Your task to perform on an android device: turn off notifications settings in the gmail app Image 0: 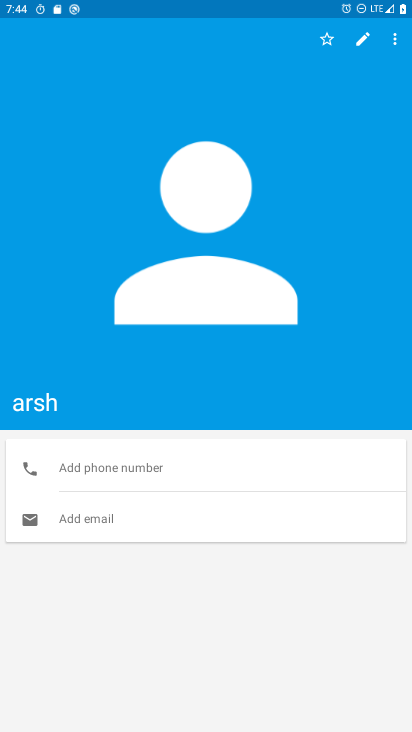
Step 0: press home button
Your task to perform on an android device: turn off notifications settings in the gmail app Image 1: 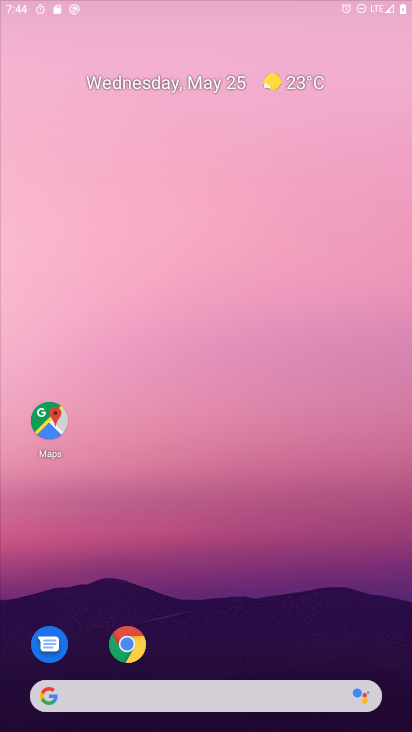
Step 1: drag from (340, 644) to (322, 113)
Your task to perform on an android device: turn off notifications settings in the gmail app Image 2: 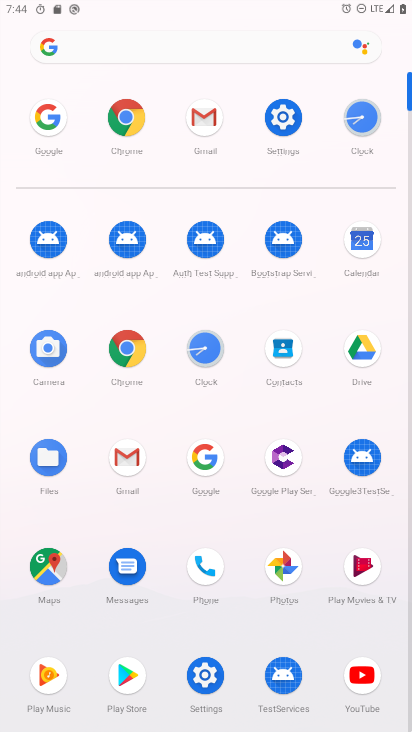
Step 2: click (120, 451)
Your task to perform on an android device: turn off notifications settings in the gmail app Image 3: 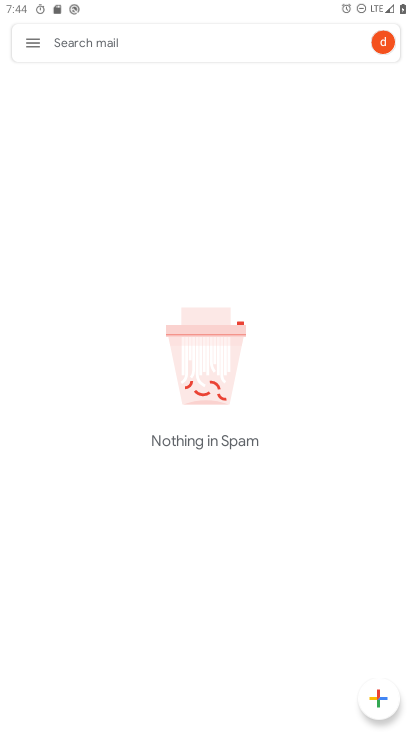
Step 3: click (33, 40)
Your task to perform on an android device: turn off notifications settings in the gmail app Image 4: 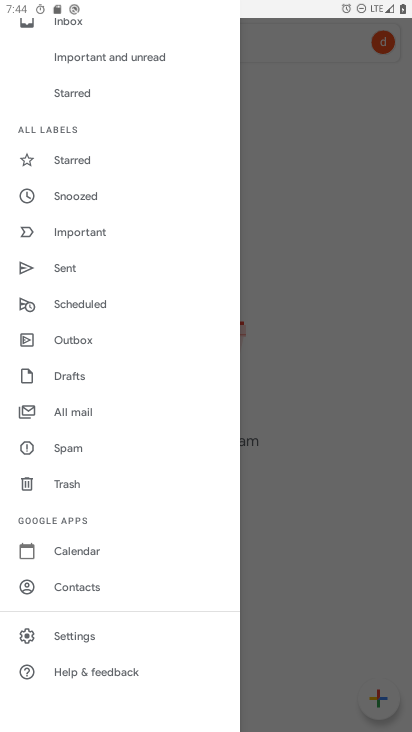
Step 4: click (108, 636)
Your task to perform on an android device: turn off notifications settings in the gmail app Image 5: 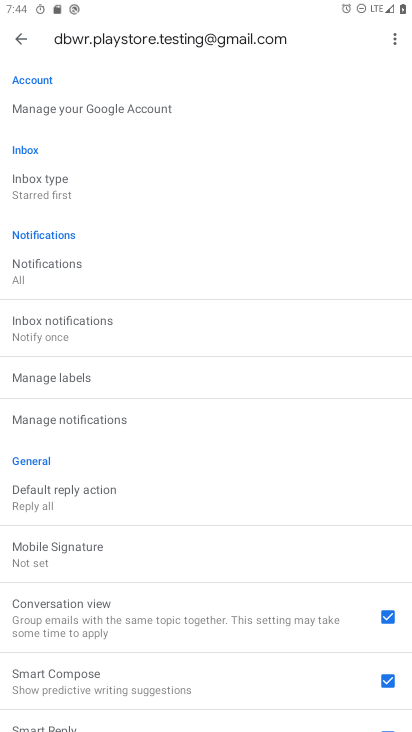
Step 5: click (73, 264)
Your task to perform on an android device: turn off notifications settings in the gmail app Image 6: 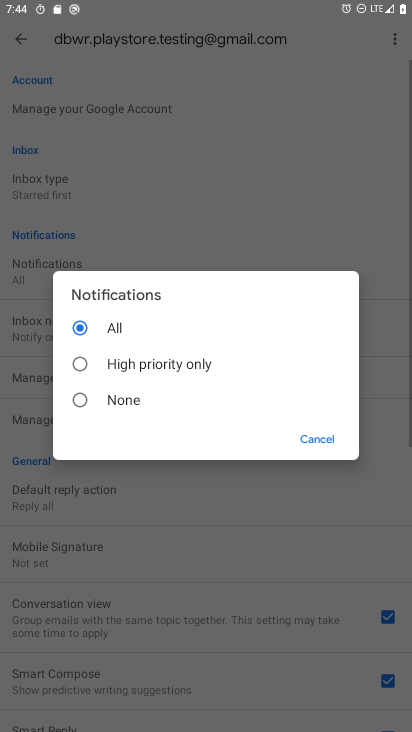
Step 6: click (80, 393)
Your task to perform on an android device: turn off notifications settings in the gmail app Image 7: 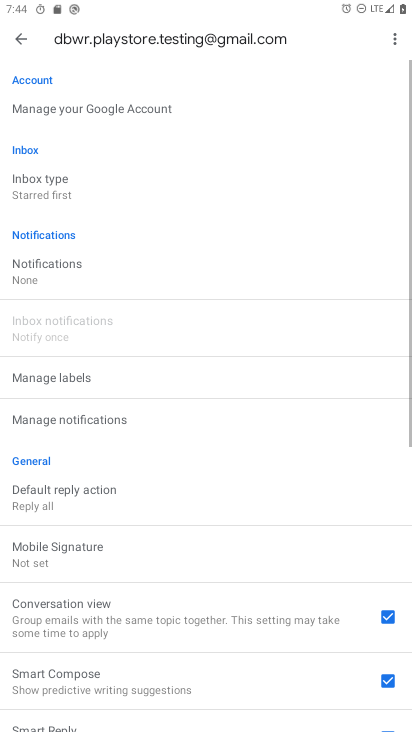
Step 7: task complete